Your task to perform on an android device: What's on my calendar tomorrow? Image 0: 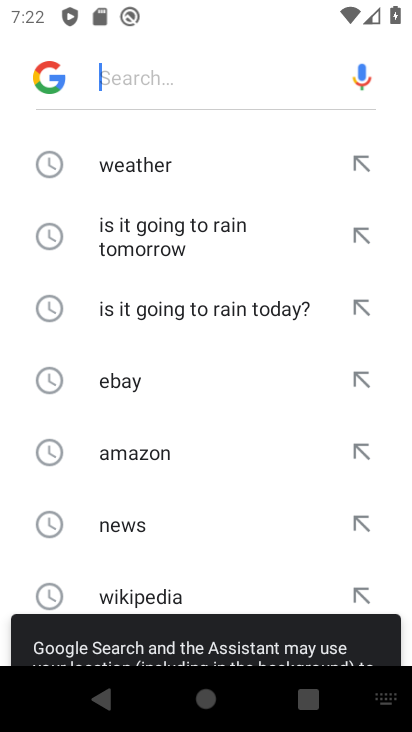
Step 0: press home button
Your task to perform on an android device: What's on my calendar tomorrow? Image 1: 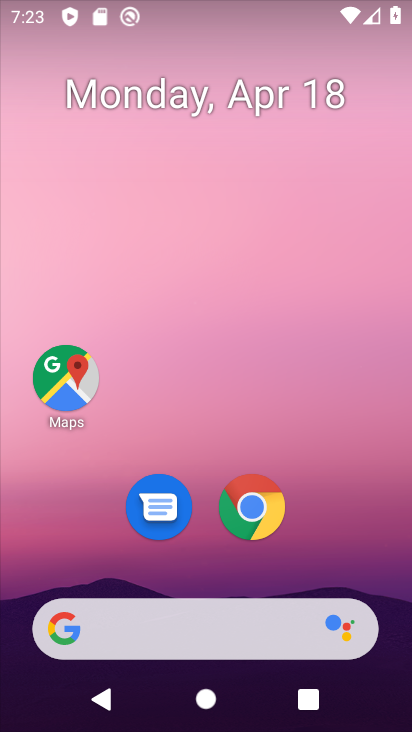
Step 1: drag from (2, 543) to (145, 28)
Your task to perform on an android device: What's on my calendar tomorrow? Image 2: 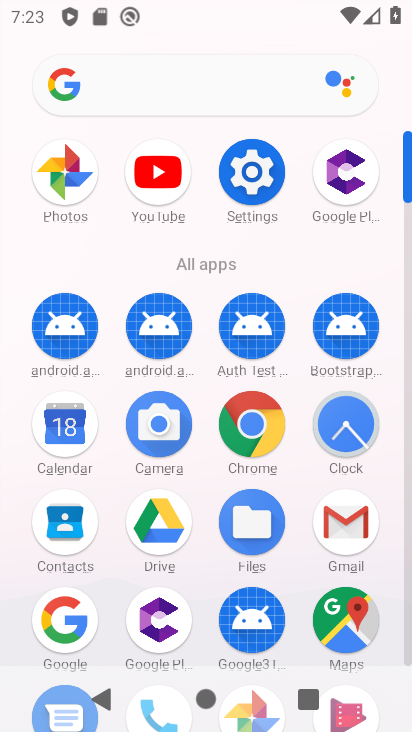
Step 2: click (59, 416)
Your task to perform on an android device: What's on my calendar tomorrow? Image 3: 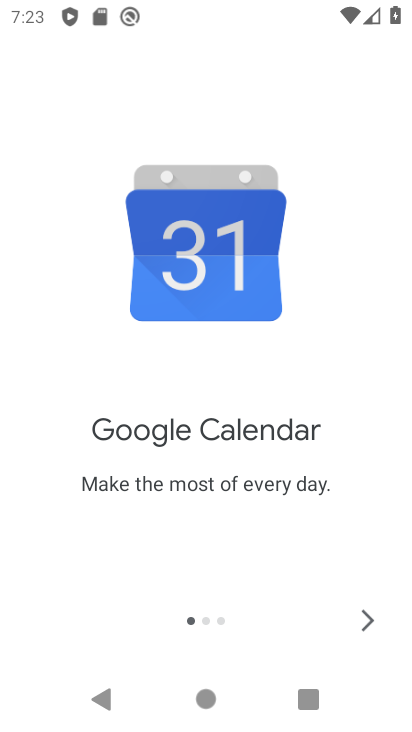
Step 3: click (371, 629)
Your task to perform on an android device: What's on my calendar tomorrow? Image 4: 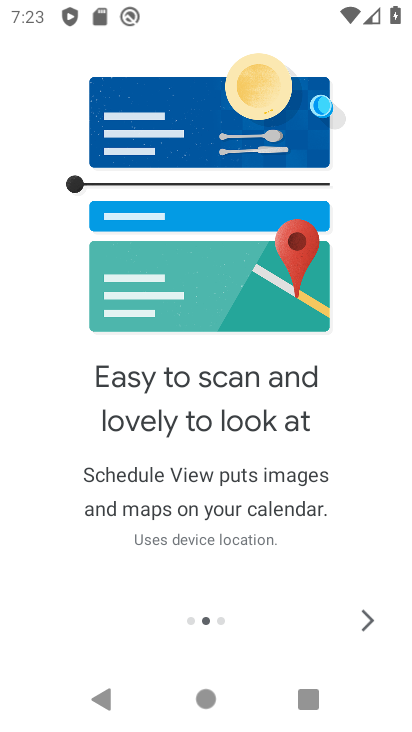
Step 4: click (364, 618)
Your task to perform on an android device: What's on my calendar tomorrow? Image 5: 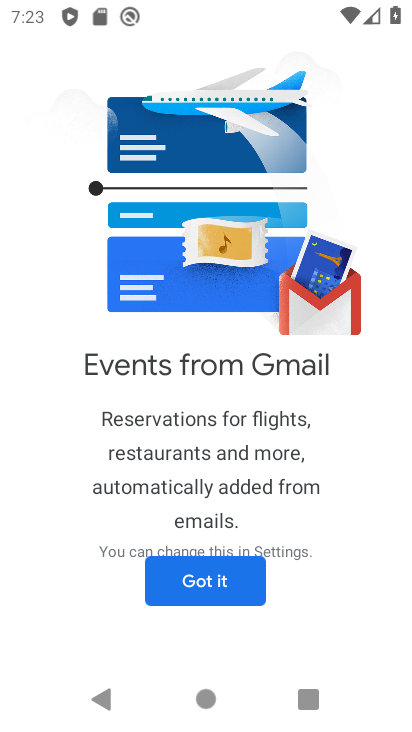
Step 5: click (236, 586)
Your task to perform on an android device: What's on my calendar tomorrow? Image 6: 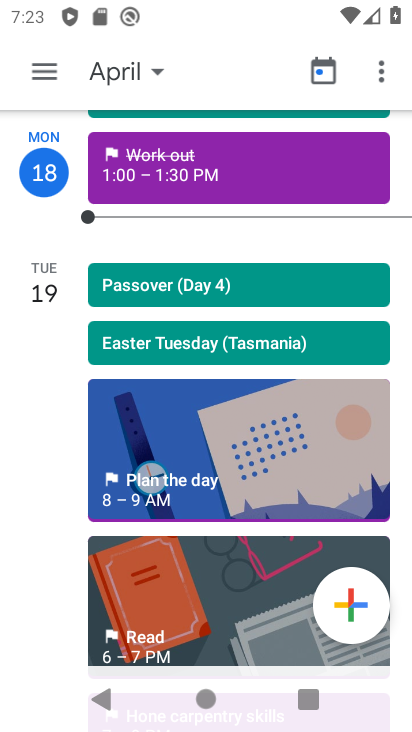
Step 6: drag from (28, 567) to (90, 119)
Your task to perform on an android device: What's on my calendar tomorrow? Image 7: 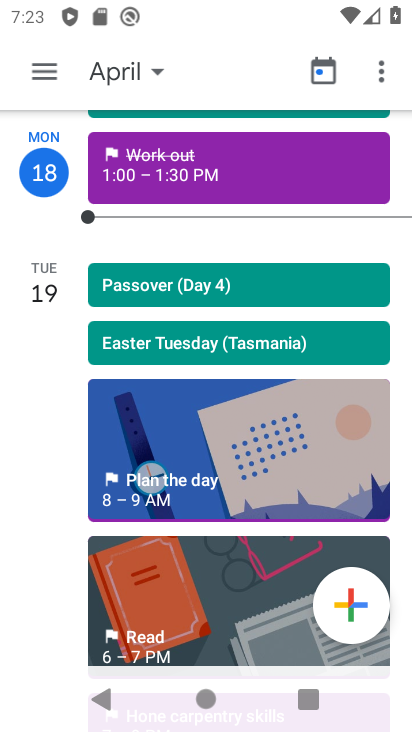
Step 7: drag from (73, 614) to (79, 149)
Your task to perform on an android device: What's on my calendar tomorrow? Image 8: 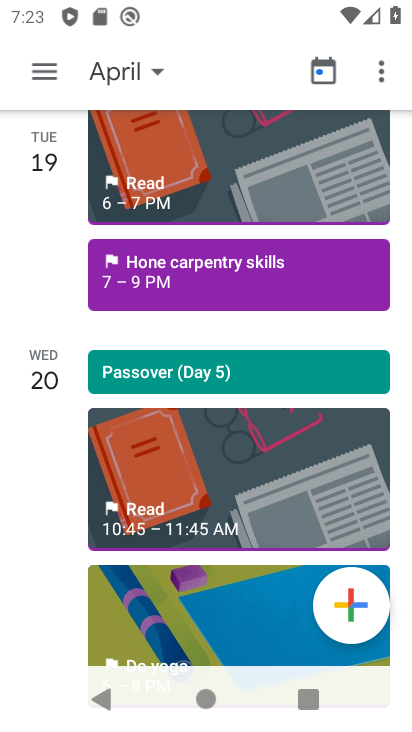
Step 8: click (45, 378)
Your task to perform on an android device: What's on my calendar tomorrow? Image 9: 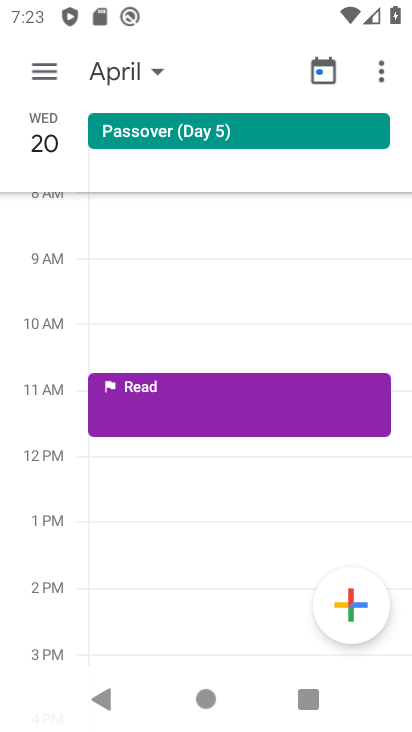
Step 9: task complete